Your task to perform on an android device: see sites visited before in the chrome app Image 0: 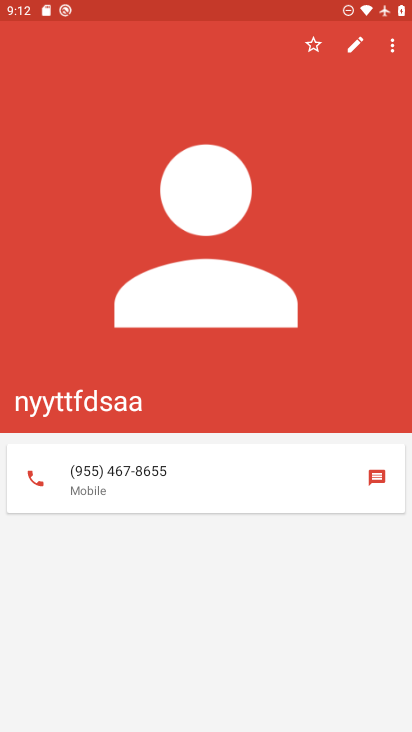
Step 0: press home button
Your task to perform on an android device: see sites visited before in the chrome app Image 1: 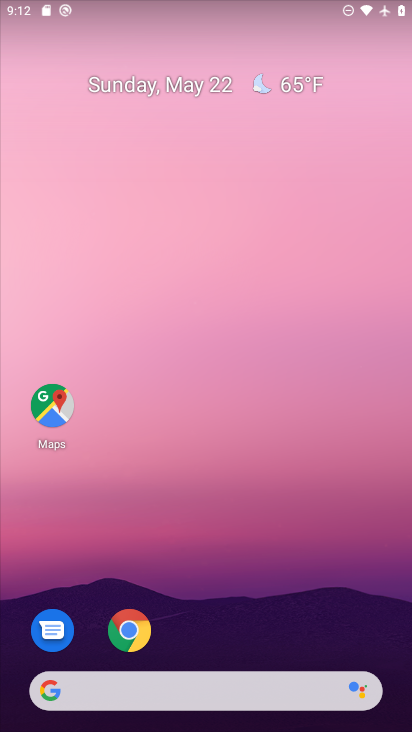
Step 1: click (137, 636)
Your task to perform on an android device: see sites visited before in the chrome app Image 2: 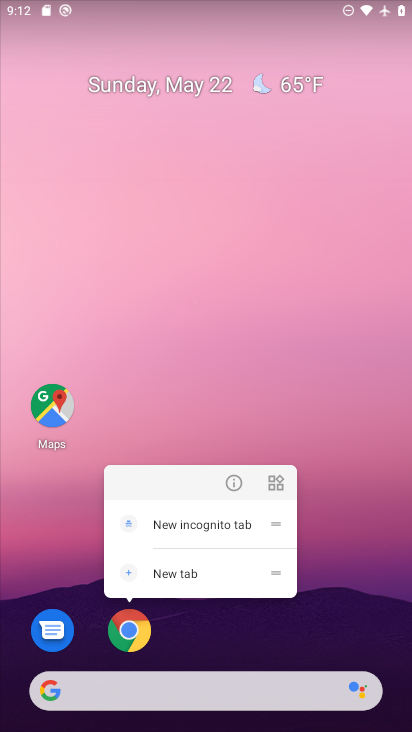
Step 2: click (136, 635)
Your task to perform on an android device: see sites visited before in the chrome app Image 3: 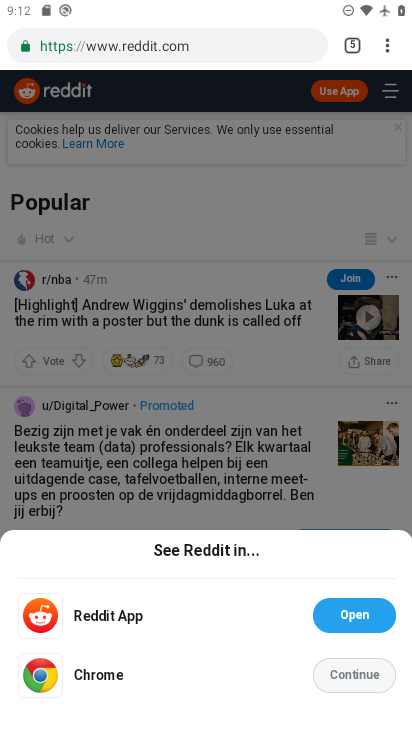
Step 3: task complete